Your task to perform on an android device: toggle sleep mode Image 0: 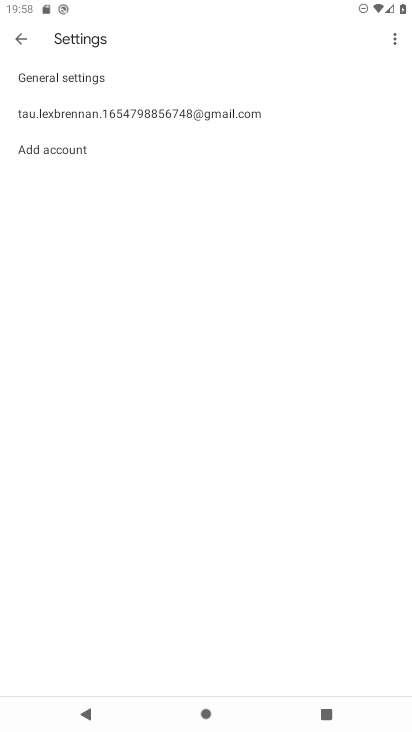
Step 0: press home button
Your task to perform on an android device: toggle sleep mode Image 1: 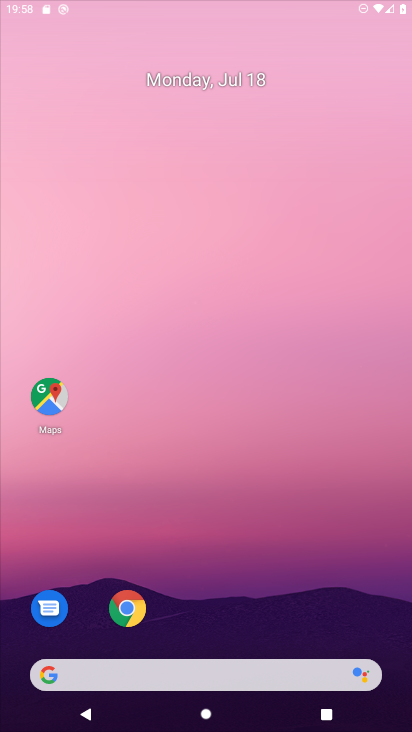
Step 1: drag from (232, 635) to (250, 101)
Your task to perform on an android device: toggle sleep mode Image 2: 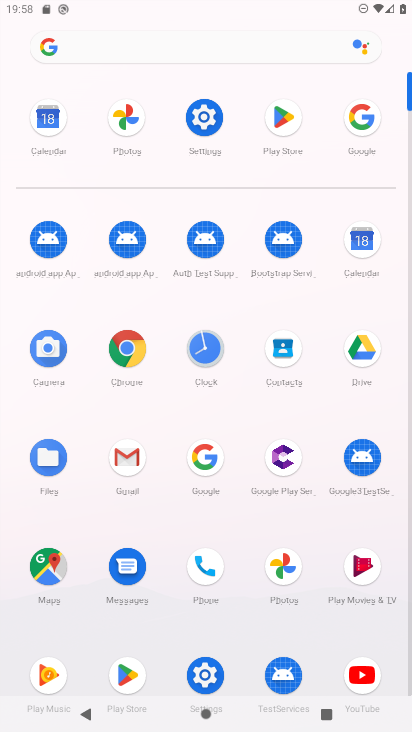
Step 2: click (200, 117)
Your task to perform on an android device: toggle sleep mode Image 3: 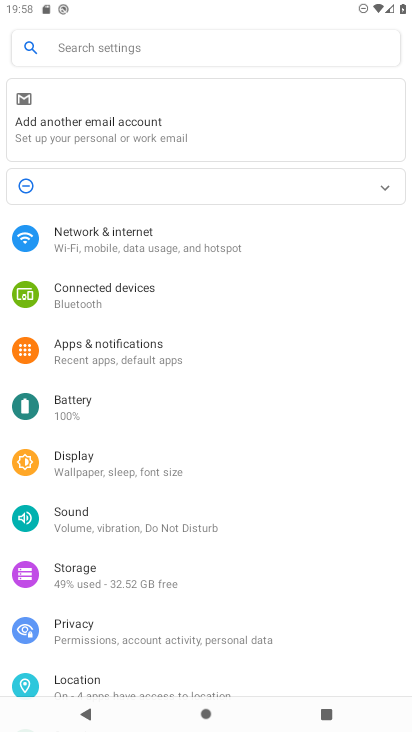
Step 3: click (107, 470)
Your task to perform on an android device: toggle sleep mode Image 4: 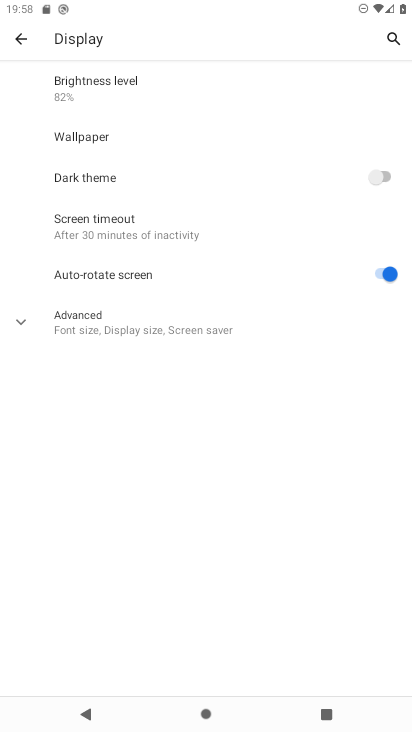
Step 4: click (107, 326)
Your task to perform on an android device: toggle sleep mode Image 5: 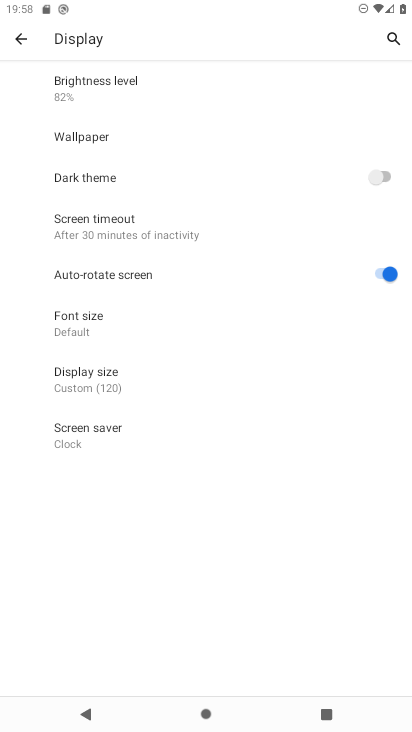
Step 5: click (118, 226)
Your task to perform on an android device: toggle sleep mode Image 6: 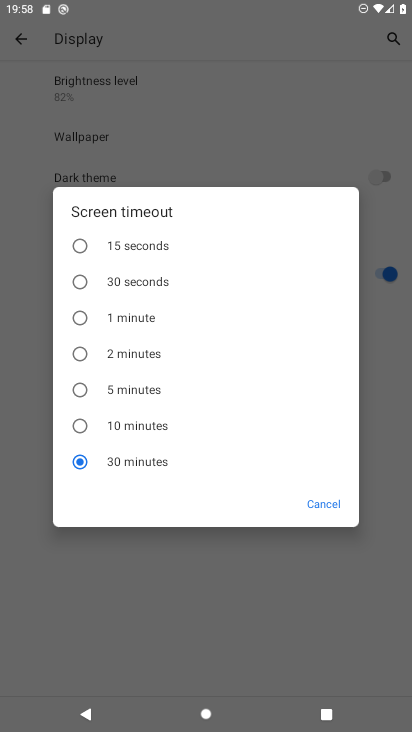
Step 6: click (74, 415)
Your task to perform on an android device: toggle sleep mode Image 7: 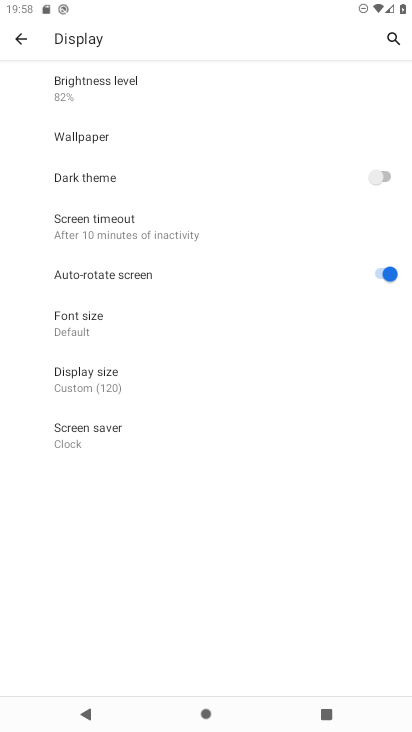
Step 7: task complete